Your task to perform on an android device: Go to notification settings Image 0: 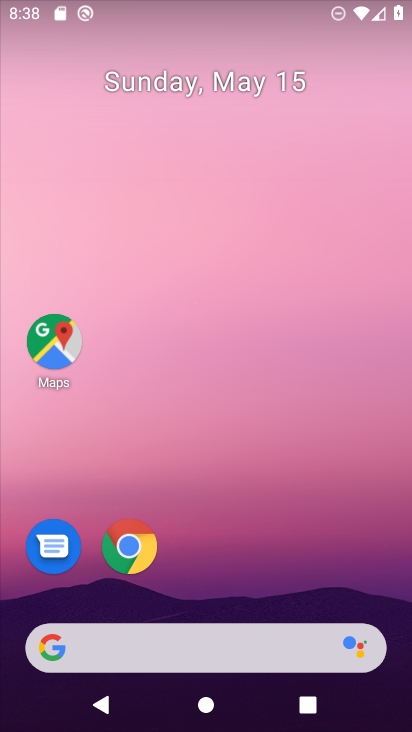
Step 0: drag from (251, 530) to (226, 67)
Your task to perform on an android device: Go to notification settings Image 1: 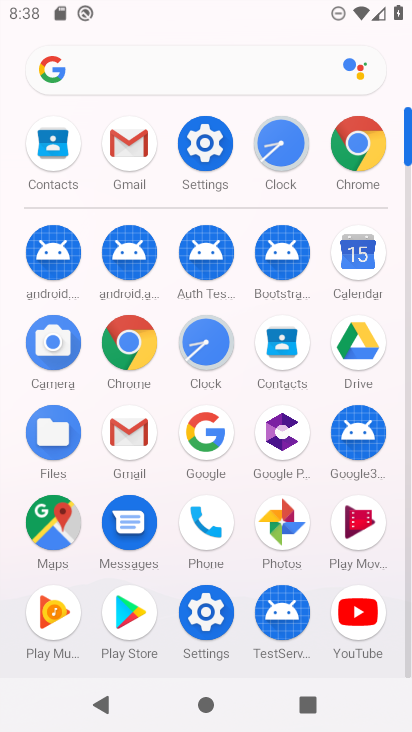
Step 1: click (217, 137)
Your task to perform on an android device: Go to notification settings Image 2: 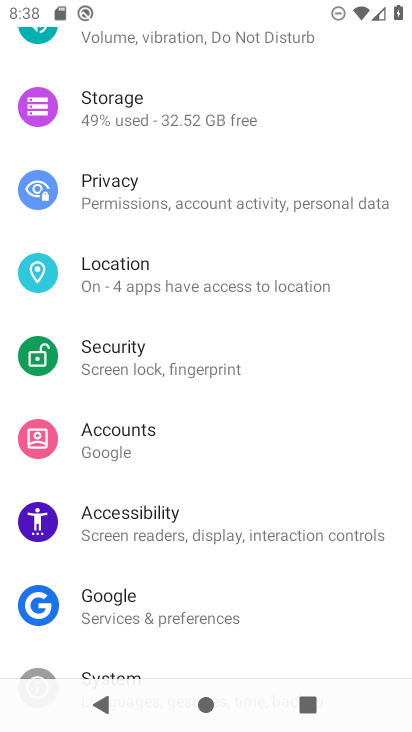
Step 2: drag from (250, 258) to (261, 646)
Your task to perform on an android device: Go to notification settings Image 3: 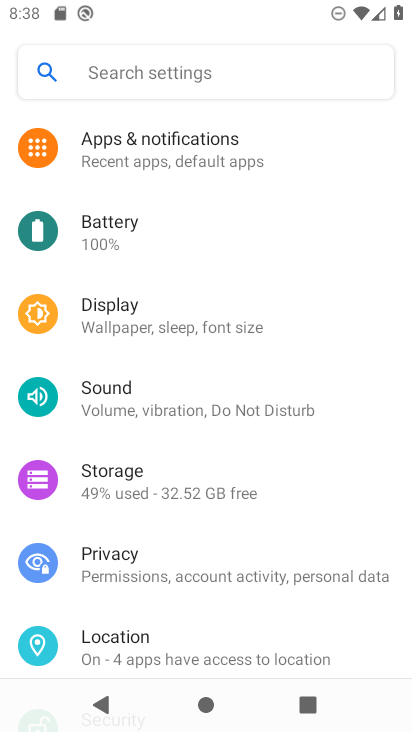
Step 3: click (214, 136)
Your task to perform on an android device: Go to notification settings Image 4: 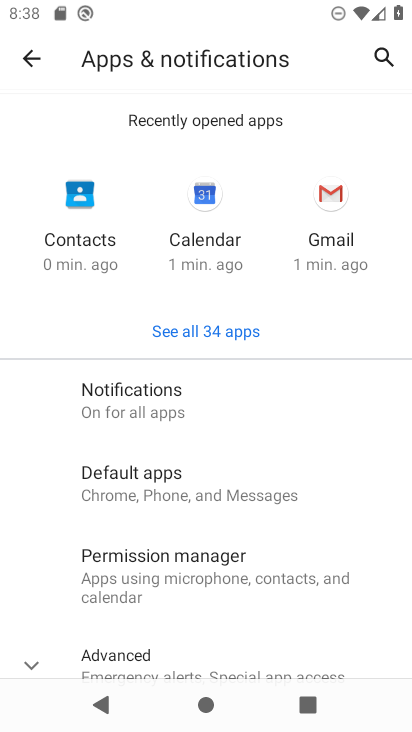
Step 4: click (153, 401)
Your task to perform on an android device: Go to notification settings Image 5: 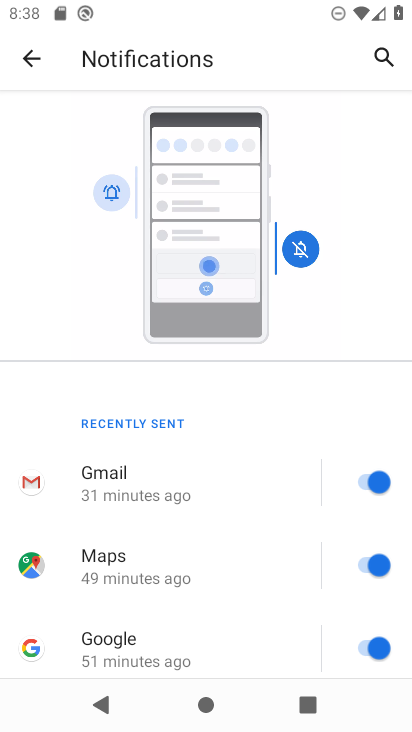
Step 5: task complete